Your task to perform on an android device: Open accessibility settings Image 0: 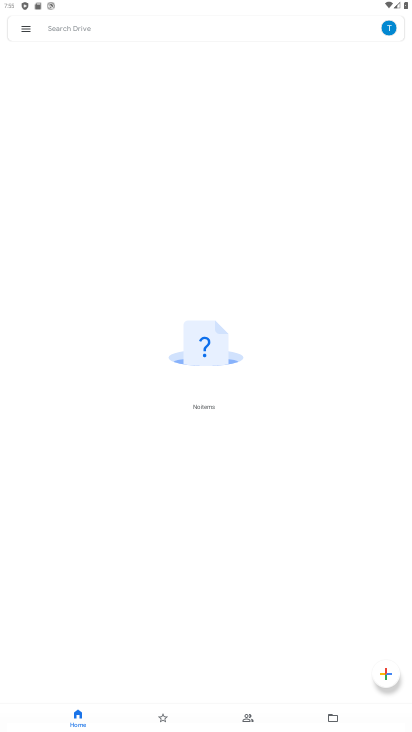
Step 0: press home button
Your task to perform on an android device: Open accessibility settings Image 1: 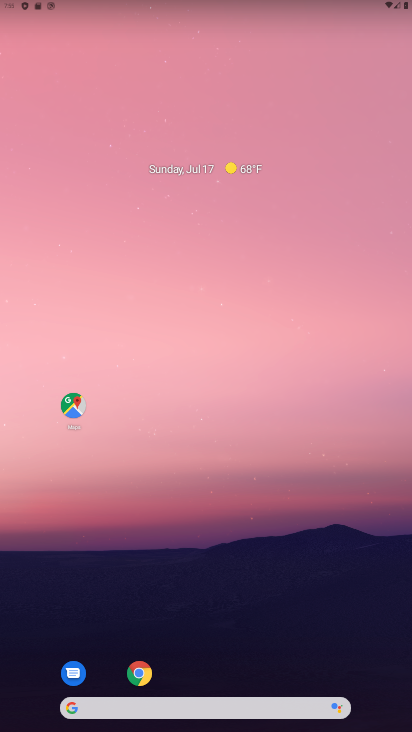
Step 1: drag from (263, 646) to (218, 10)
Your task to perform on an android device: Open accessibility settings Image 2: 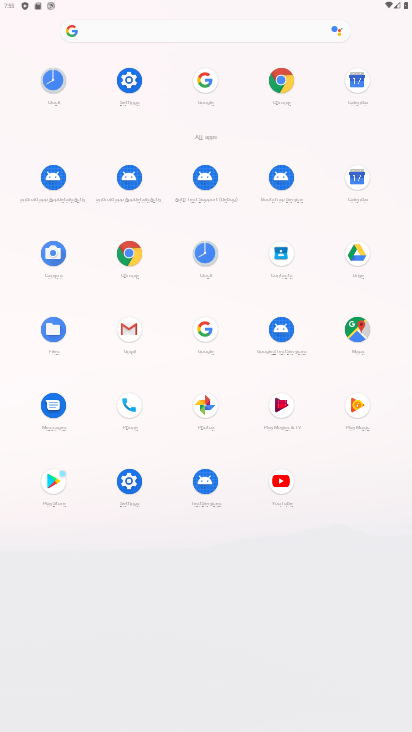
Step 2: click (135, 86)
Your task to perform on an android device: Open accessibility settings Image 3: 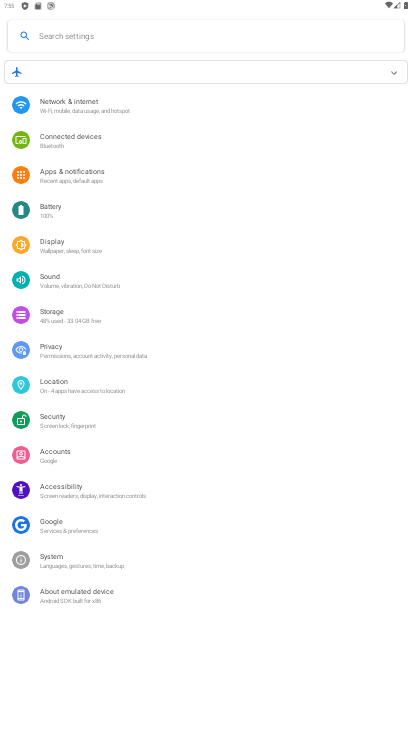
Step 3: click (69, 491)
Your task to perform on an android device: Open accessibility settings Image 4: 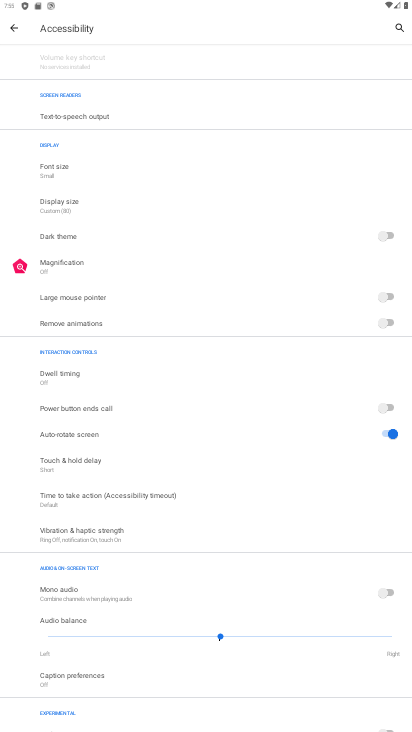
Step 4: task complete